Your task to perform on an android device: visit the assistant section in the google photos Image 0: 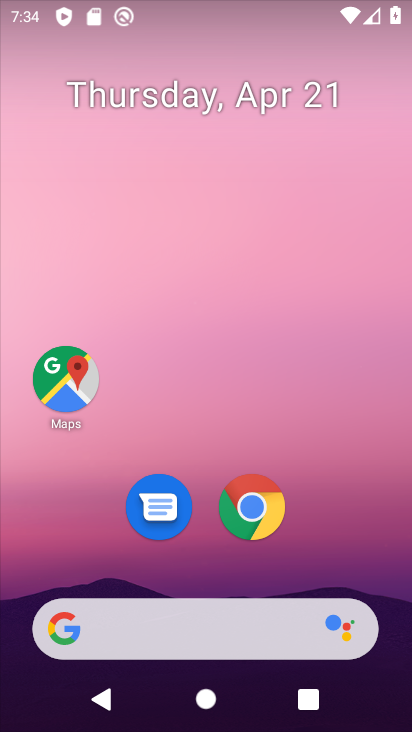
Step 0: drag from (355, 533) to (370, 81)
Your task to perform on an android device: visit the assistant section in the google photos Image 1: 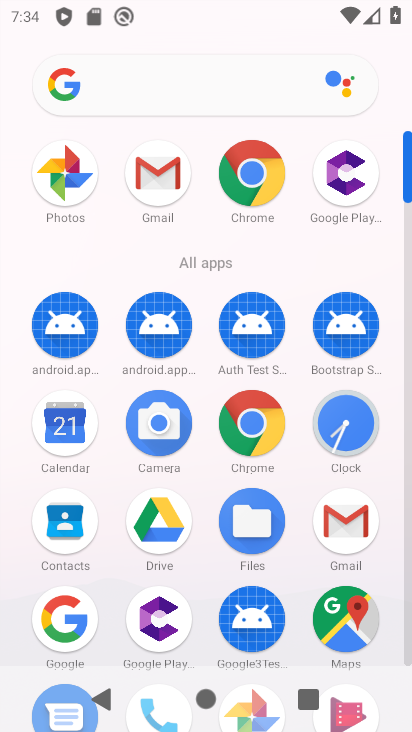
Step 1: drag from (384, 448) to (387, 138)
Your task to perform on an android device: visit the assistant section in the google photos Image 2: 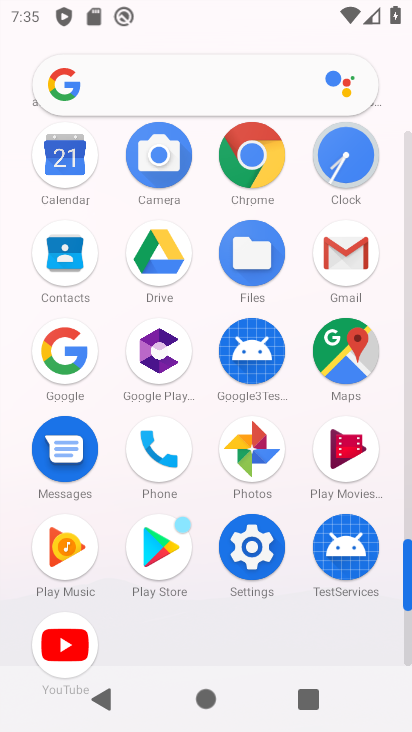
Step 2: click (249, 453)
Your task to perform on an android device: visit the assistant section in the google photos Image 3: 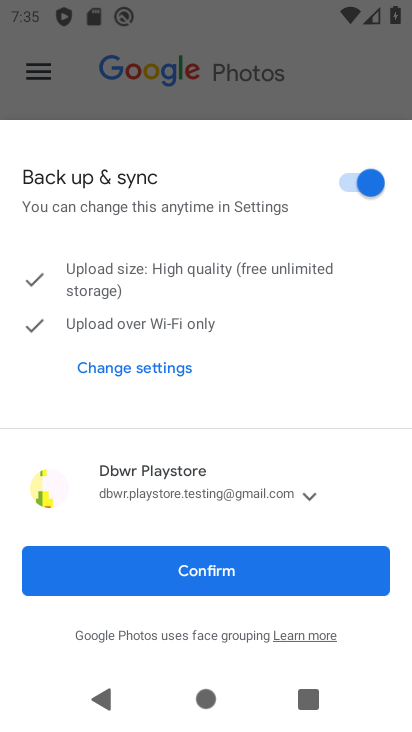
Step 3: click (289, 572)
Your task to perform on an android device: visit the assistant section in the google photos Image 4: 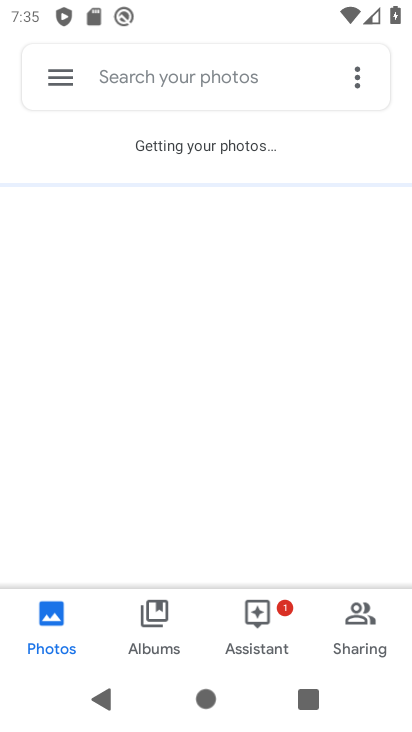
Step 4: click (257, 617)
Your task to perform on an android device: visit the assistant section in the google photos Image 5: 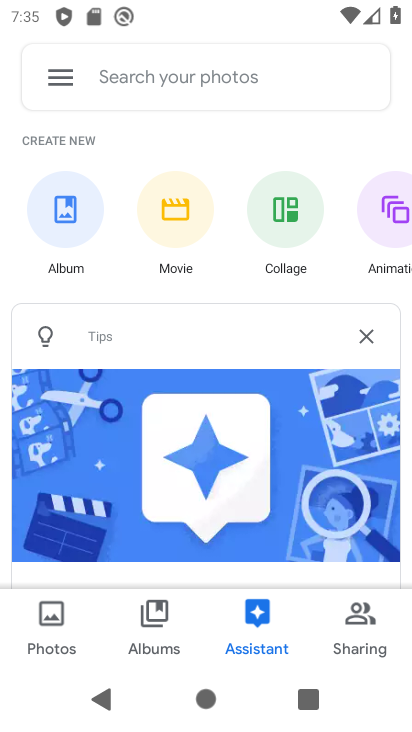
Step 5: task complete